Your task to perform on an android device: Check the news Image 0: 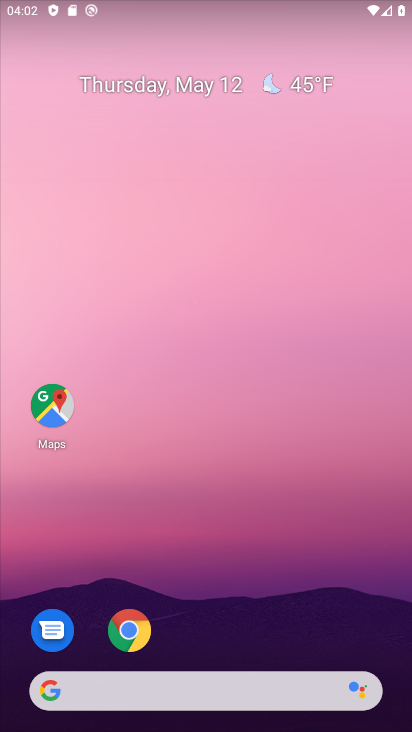
Step 0: click (178, 694)
Your task to perform on an android device: Check the news Image 1: 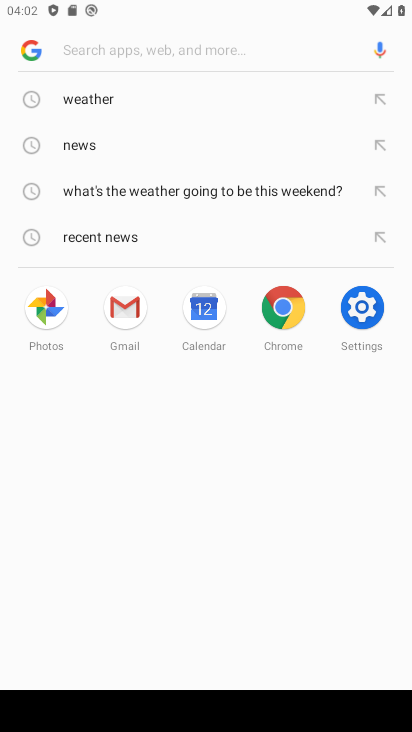
Step 1: click (98, 143)
Your task to perform on an android device: Check the news Image 2: 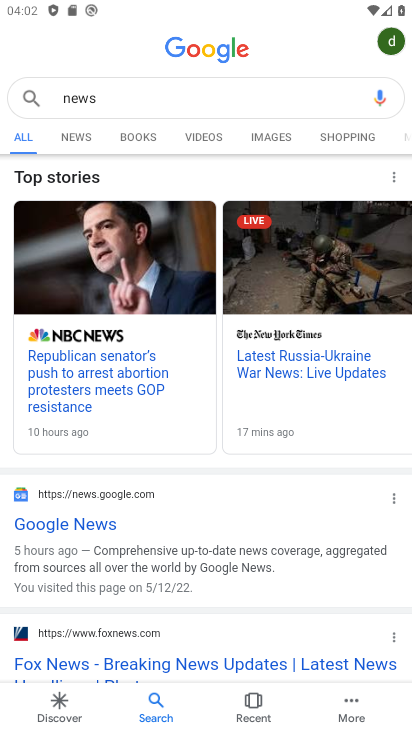
Step 2: task complete